Your task to perform on an android device: Open the calendar app, open the side menu, and click the "Day" option Image 0: 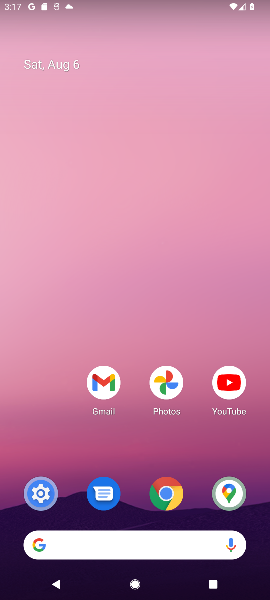
Step 0: drag from (118, 568) to (118, 127)
Your task to perform on an android device: Open the calendar app, open the side menu, and click the "Day" option Image 1: 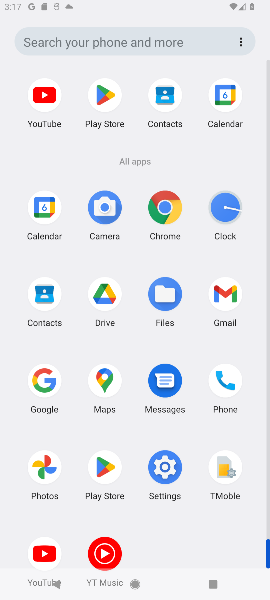
Step 1: drag from (218, 411) to (228, 100)
Your task to perform on an android device: Open the calendar app, open the side menu, and click the "Day" option Image 2: 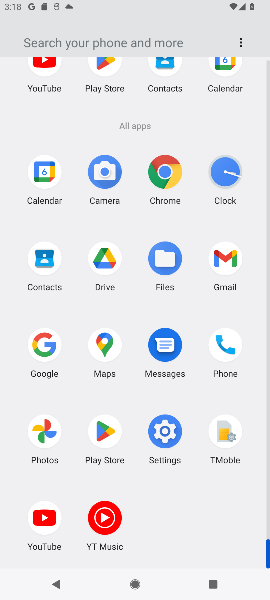
Step 2: click (224, 69)
Your task to perform on an android device: Open the calendar app, open the side menu, and click the "Day" option Image 3: 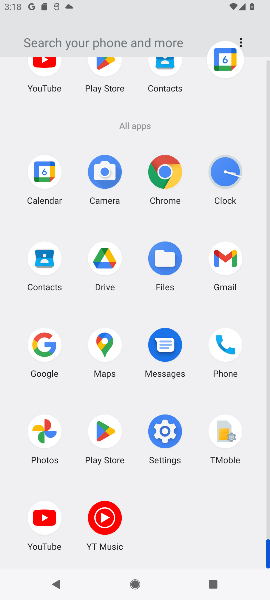
Step 3: click (224, 69)
Your task to perform on an android device: Open the calendar app, open the side menu, and click the "Day" option Image 4: 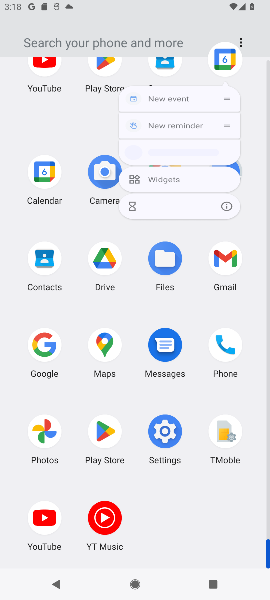
Step 4: click (224, 69)
Your task to perform on an android device: Open the calendar app, open the side menu, and click the "Day" option Image 5: 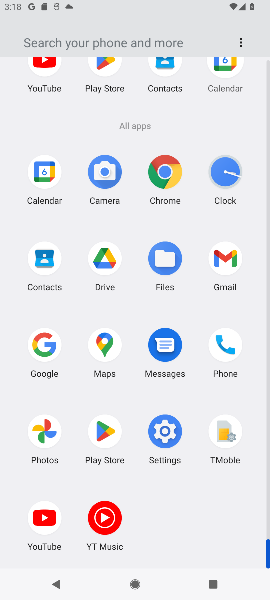
Step 5: click (222, 70)
Your task to perform on an android device: Open the calendar app, open the side menu, and click the "Day" option Image 6: 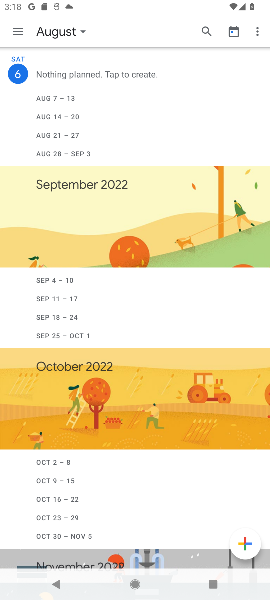
Step 6: click (18, 29)
Your task to perform on an android device: Open the calendar app, open the side menu, and click the "Day" option Image 7: 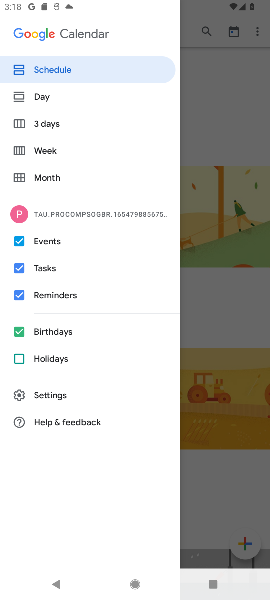
Step 7: click (40, 95)
Your task to perform on an android device: Open the calendar app, open the side menu, and click the "Day" option Image 8: 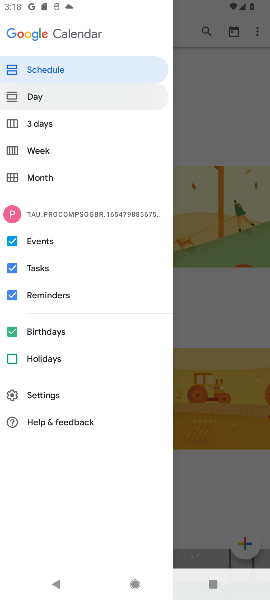
Step 8: click (40, 95)
Your task to perform on an android device: Open the calendar app, open the side menu, and click the "Day" option Image 9: 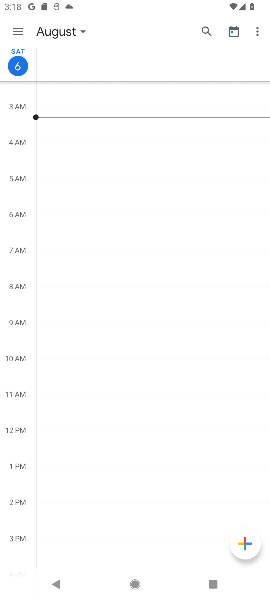
Step 9: task complete